Your task to perform on an android device: Find coffee shops on Maps Image 0: 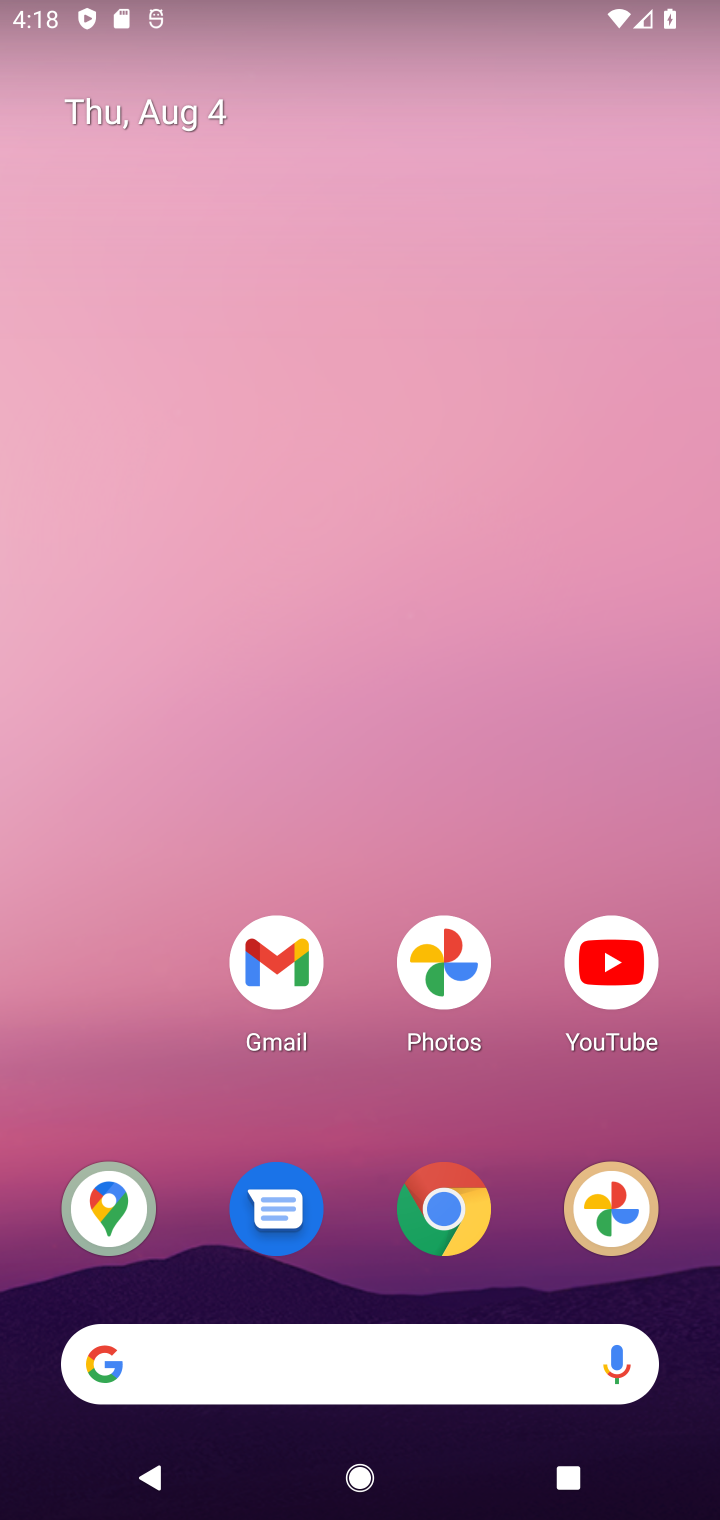
Step 0: click (108, 1224)
Your task to perform on an android device: Find coffee shops on Maps Image 1: 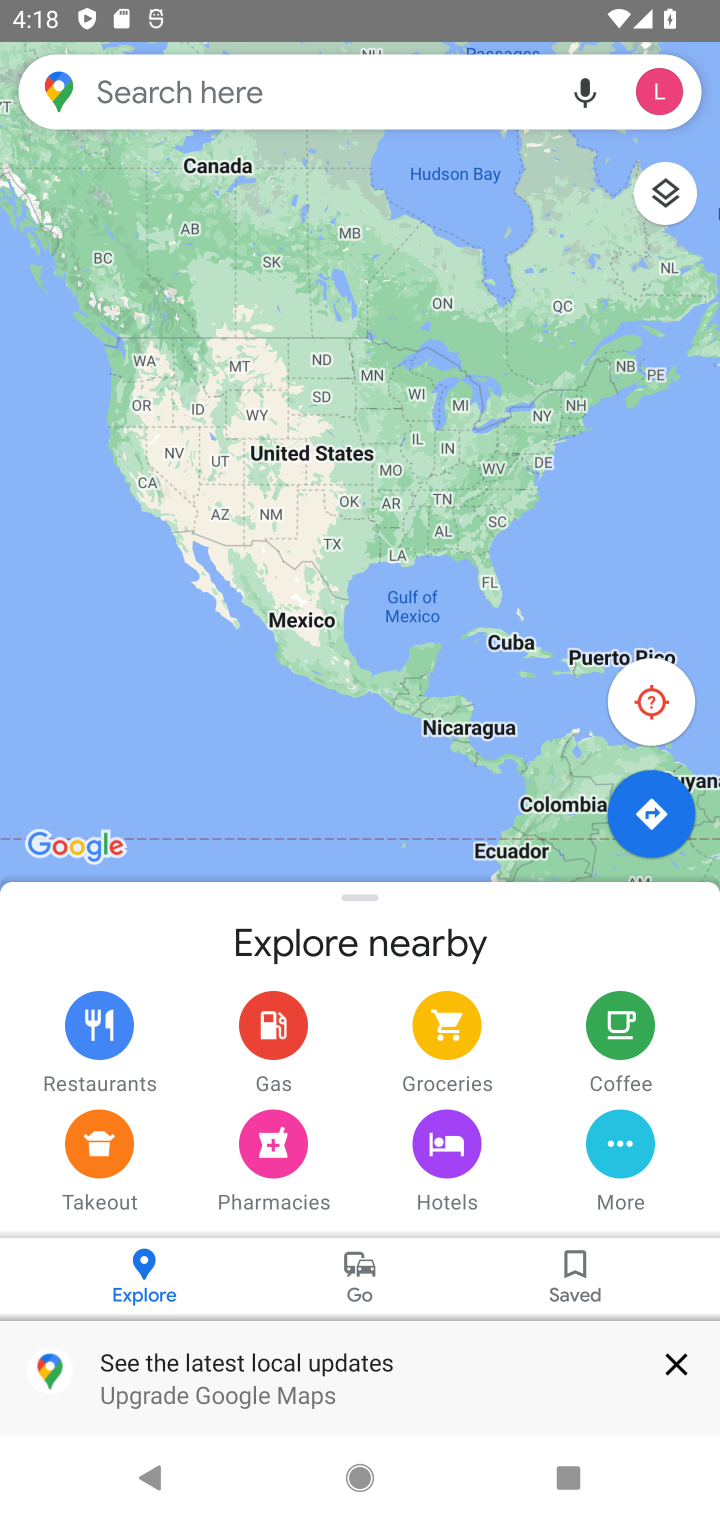
Step 1: click (234, 84)
Your task to perform on an android device: Find coffee shops on Maps Image 2: 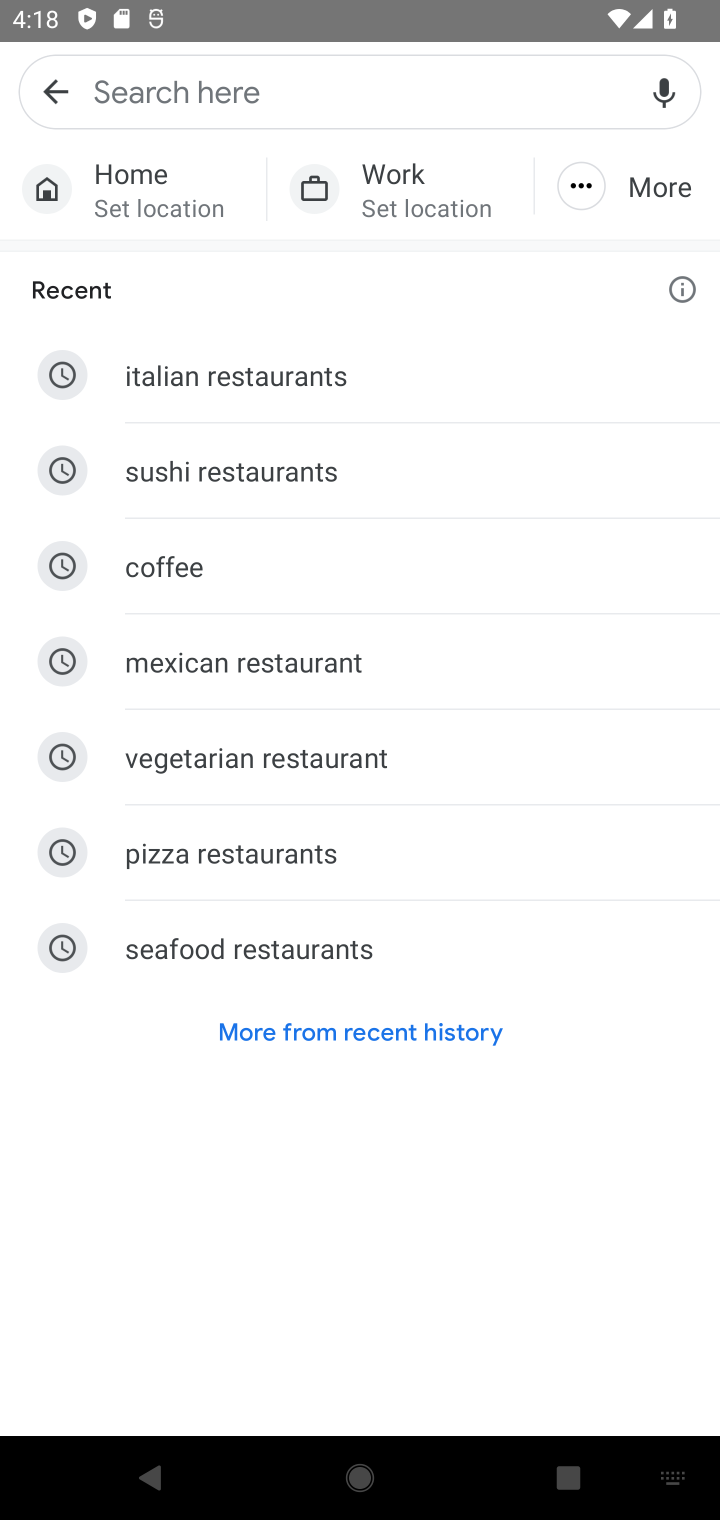
Step 2: type "coffee shops"
Your task to perform on an android device: Find coffee shops on Maps Image 3: 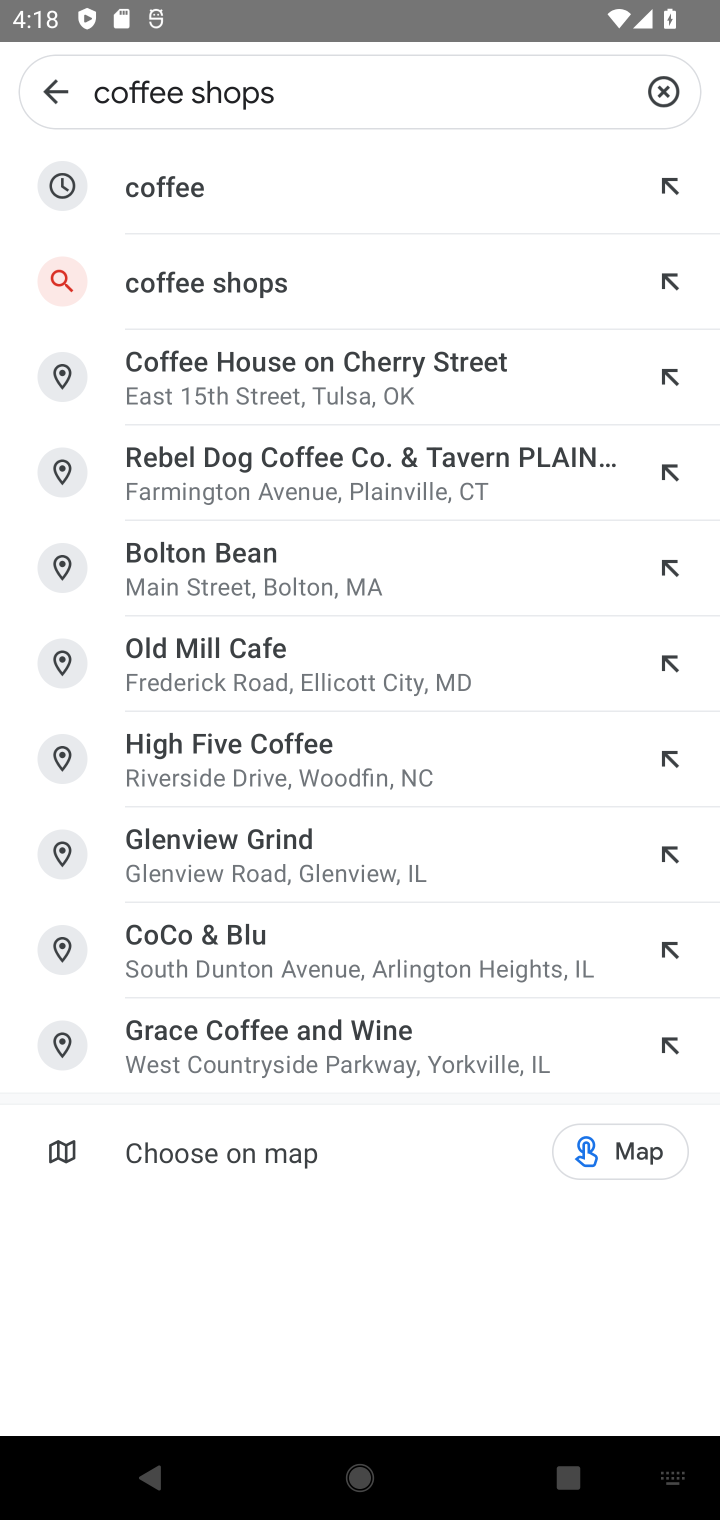
Step 3: click (294, 287)
Your task to perform on an android device: Find coffee shops on Maps Image 4: 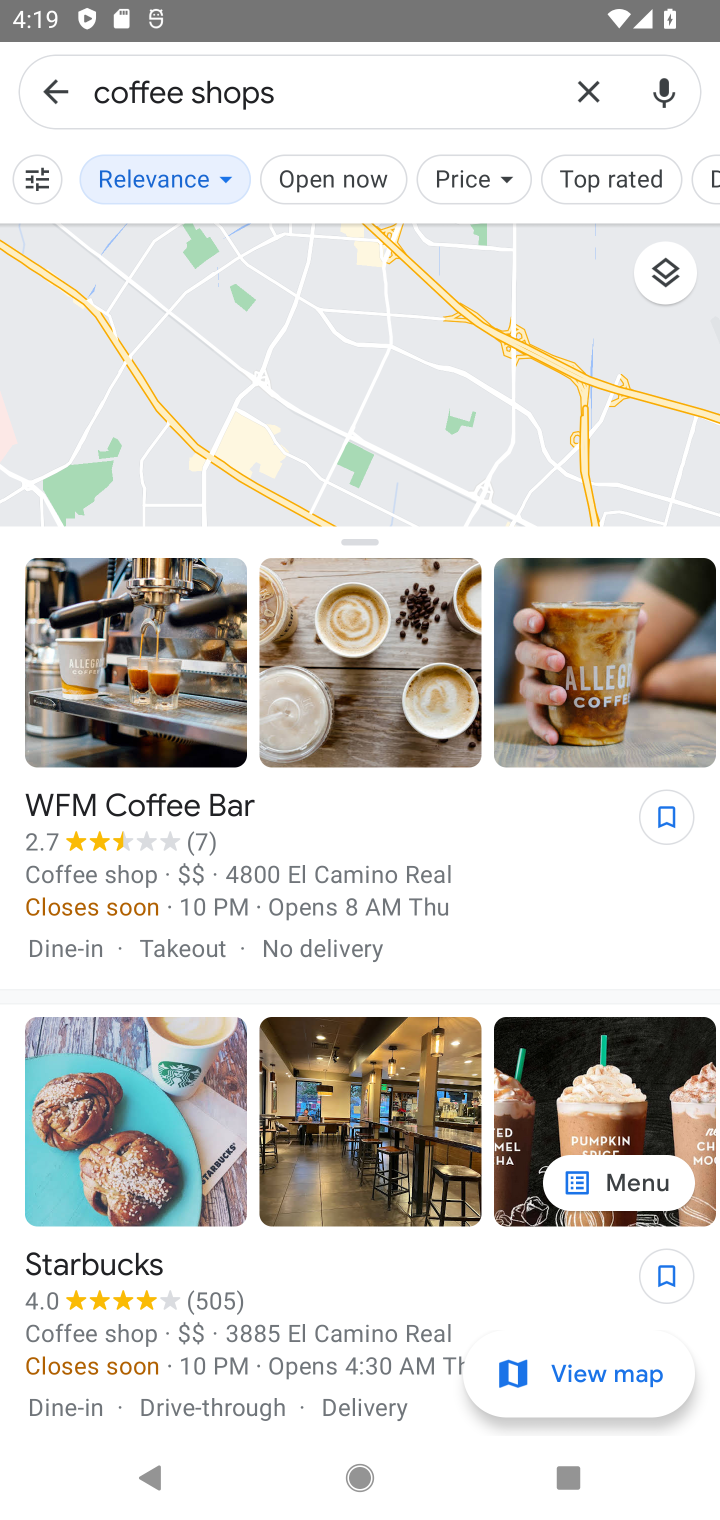
Step 4: task complete